Your task to perform on an android device: turn off location Image 0: 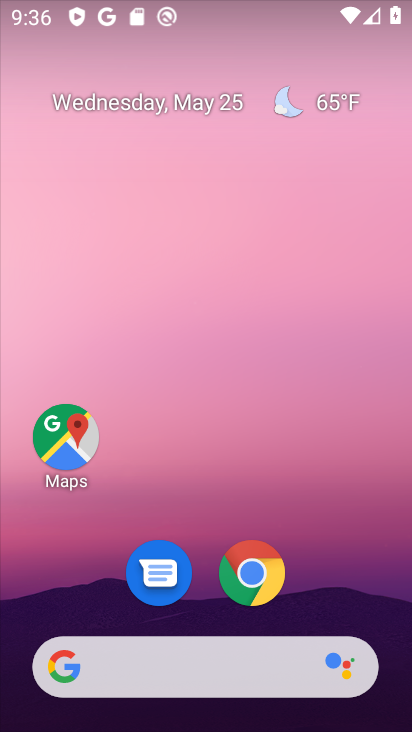
Step 0: drag from (352, 602) to (309, 78)
Your task to perform on an android device: turn off location Image 1: 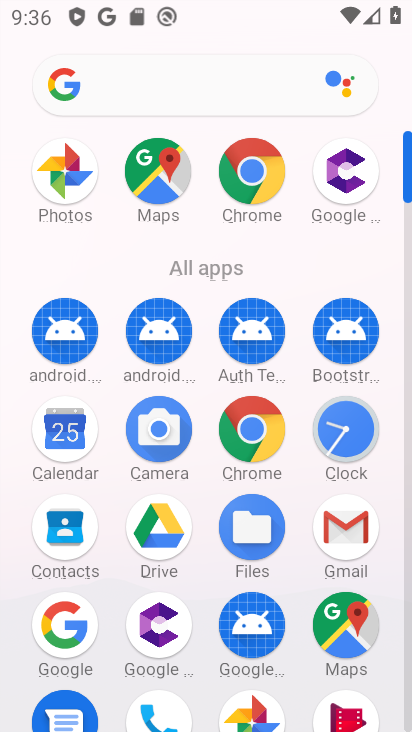
Step 1: drag from (300, 303) to (304, 83)
Your task to perform on an android device: turn off location Image 2: 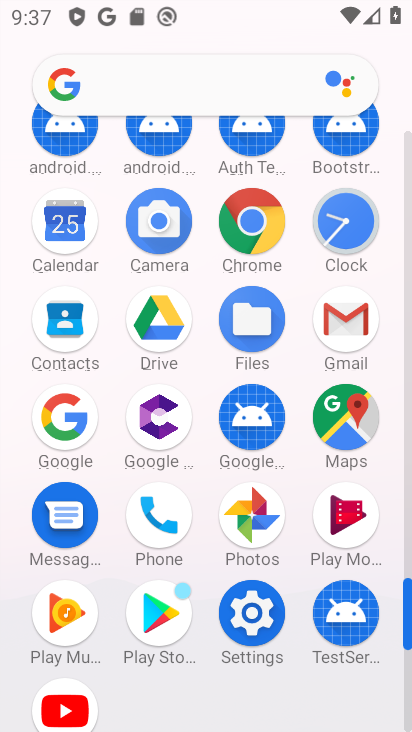
Step 2: click (264, 635)
Your task to perform on an android device: turn off location Image 3: 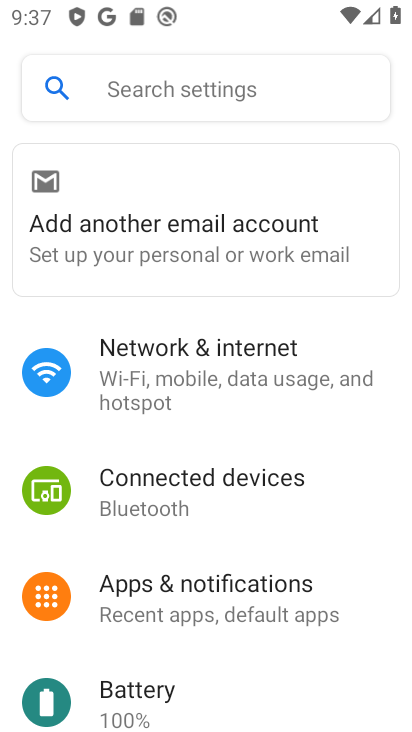
Step 3: drag from (249, 654) to (231, 378)
Your task to perform on an android device: turn off location Image 4: 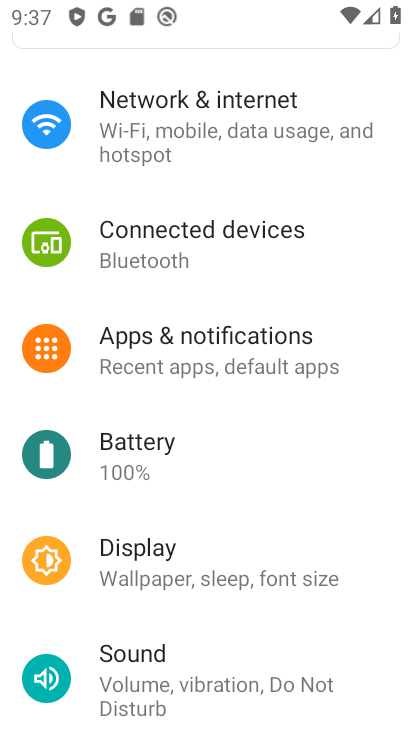
Step 4: drag from (230, 683) to (230, 373)
Your task to perform on an android device: turn off location Image 5: 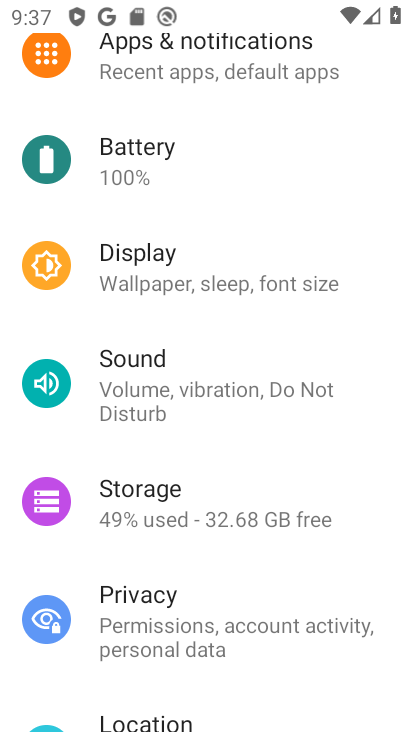
Step 5: drag from (201, 690) to (204, 427)
Your task to perform on an android device: turn off location Image 6: 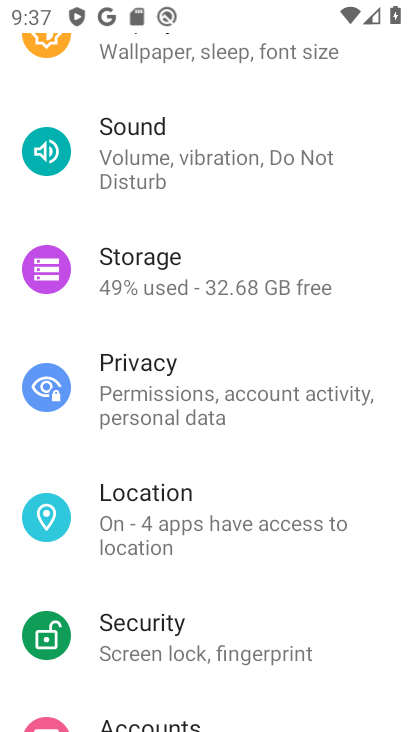
Step 6: click (180, 524)
Your task to perform on an android device: turn off location Image 7: 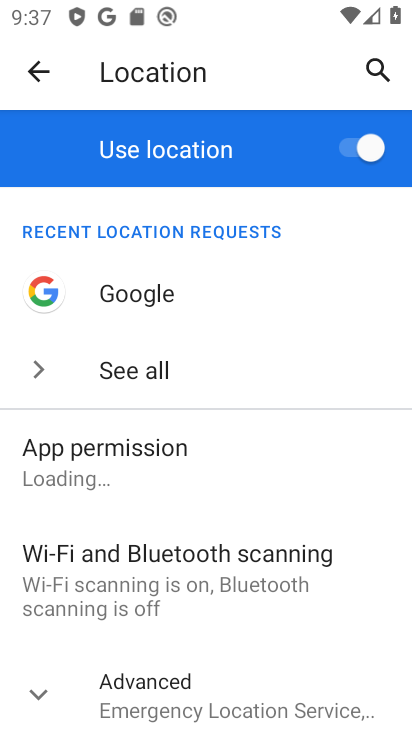
Step 7: click (358, 144)
Your task to perform on an android device: turn off location Image 8: 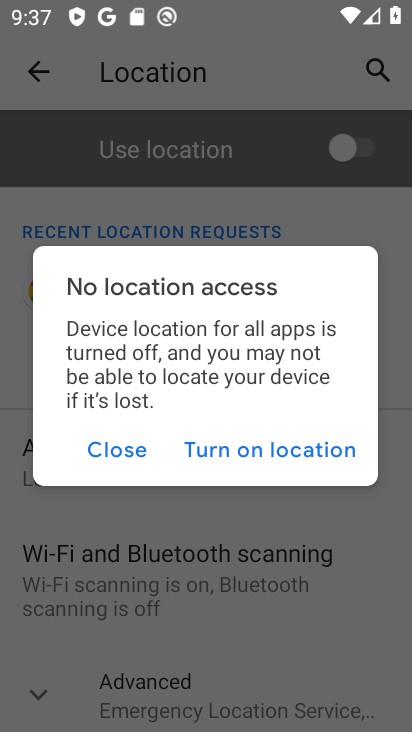
Step 8: task complete